Your task to perform on an android device: create a new album in the google photos Image 0: 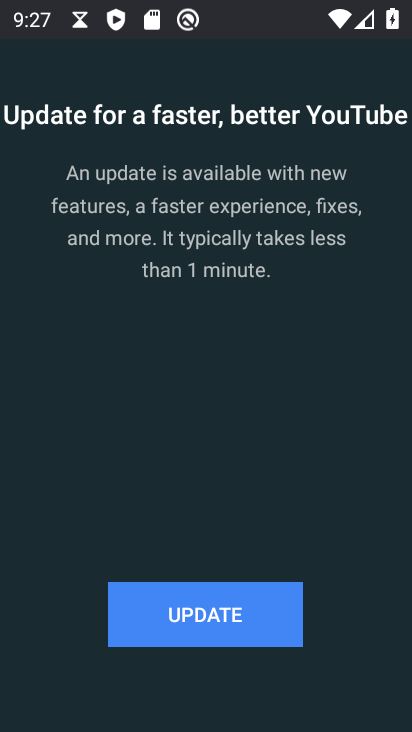
Step 0: press home button
Your task to perform on an android device: create a new album in the google photos Image 1: 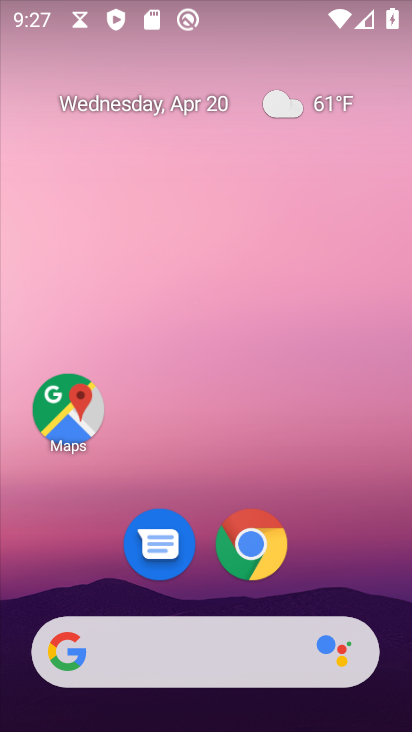
Step 1: drag from (122, 605) to (273, 4)
Your task to perform on an android device: create a new album in the google photos Image 2: 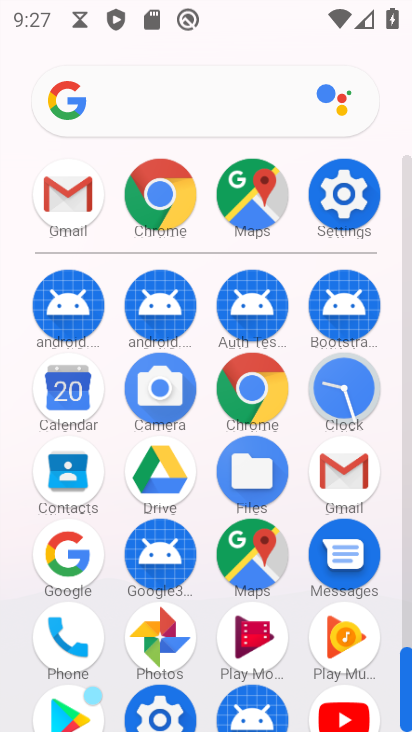
Step 2: click (155, 637)
Your task to perform on an android device: create a new album in the google photos Image 3: 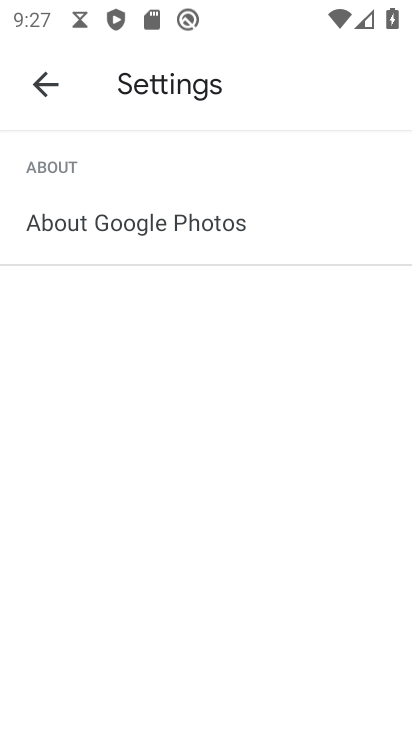
Step 3: click (40, 86)
Your task to perform on an android device: create a new album in the google photos Image 4: 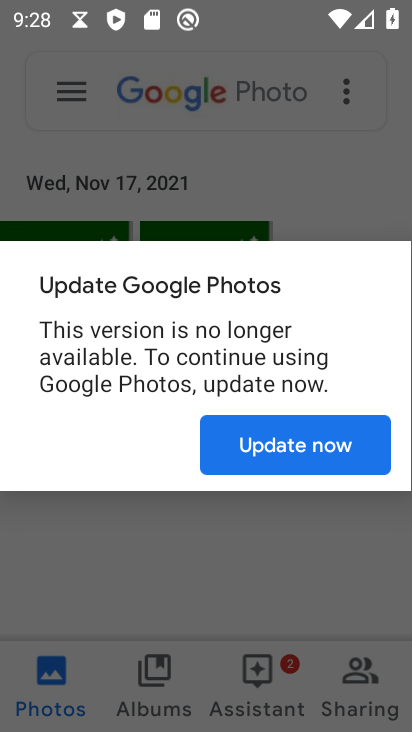
Step 4: click (308, 449)
Your task to perform on an android device: create a new album in the google photos Image 5: 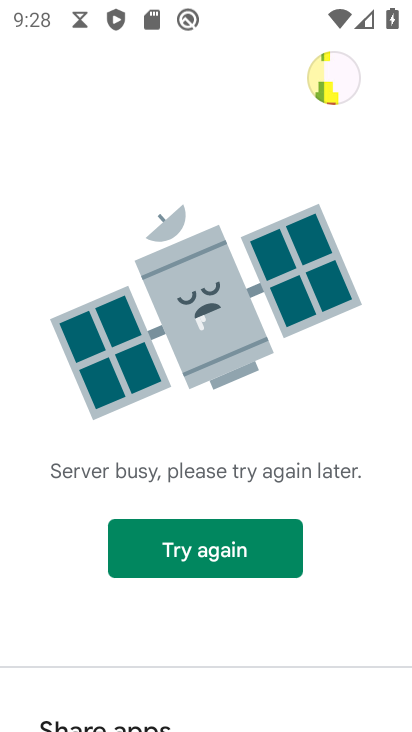
Step 5: click (218, 552)
Your task to perform on an android device: create a new album in the google photos Image 6: 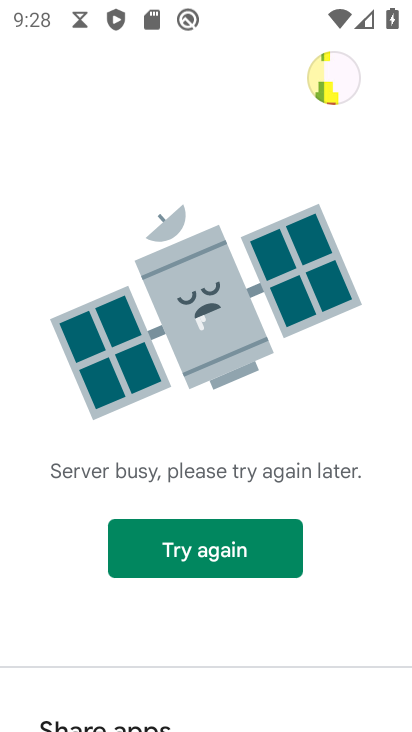
Step 6: press back button
Your task to perform on an android device: create a new album in the google photos Image 7: 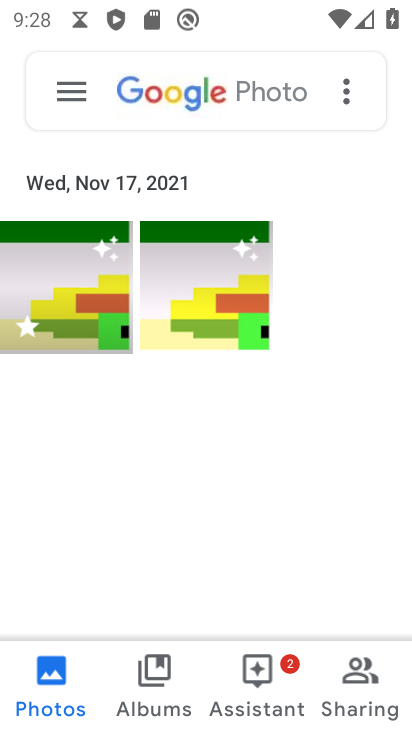
Step 7: click (163, 662)
Your task to perform on an android device: create a new album in the google photos Image 8: 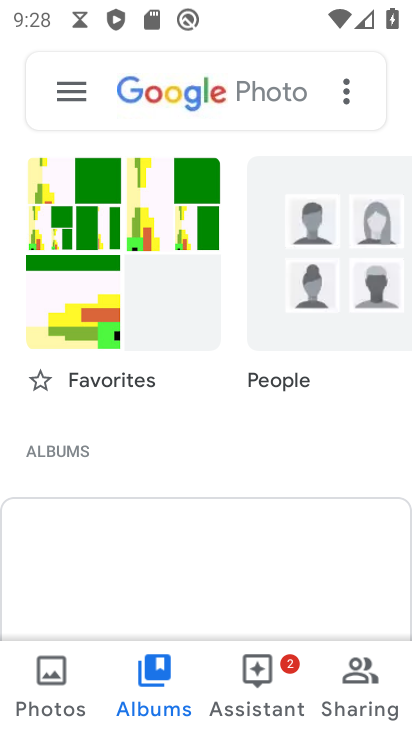
Step 8: drag from (208, 474) to (335, 88)
Your task to perform on an android device: create a new album in the google photos Image 9: 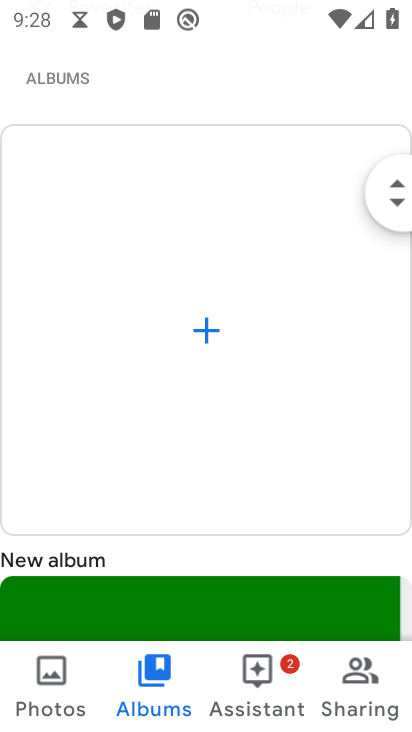
Step 9: click (206, 326)
Your task to perform on an android device: create a new album in the google photos Image 10: 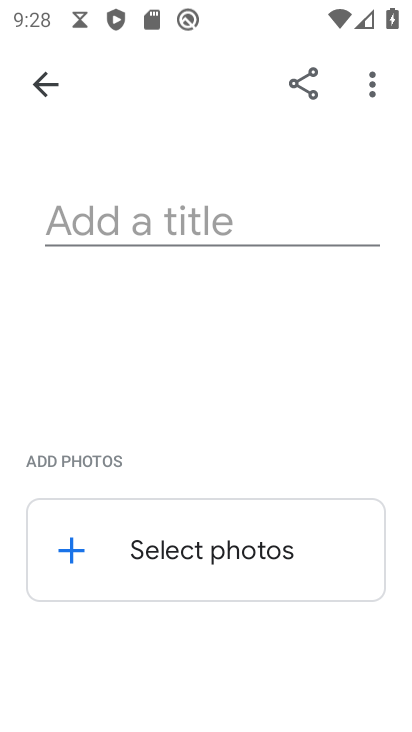
Step 10: click (166, 557)
Your task to perform on an android device: create a new album in the google photos Image 11: 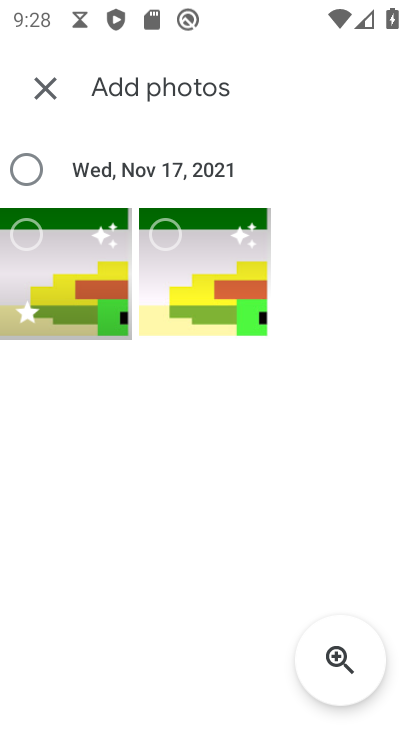
Step 11: click (26, 231)
Your task to perform on an android device: create a new album in the google photos Image 12: 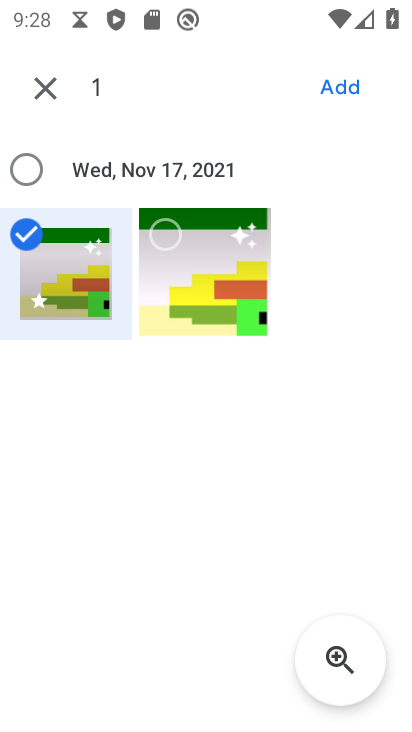
Step 12: click (159, 239)
Your task to perform on an android device: create a new album in the google photos Image 13: 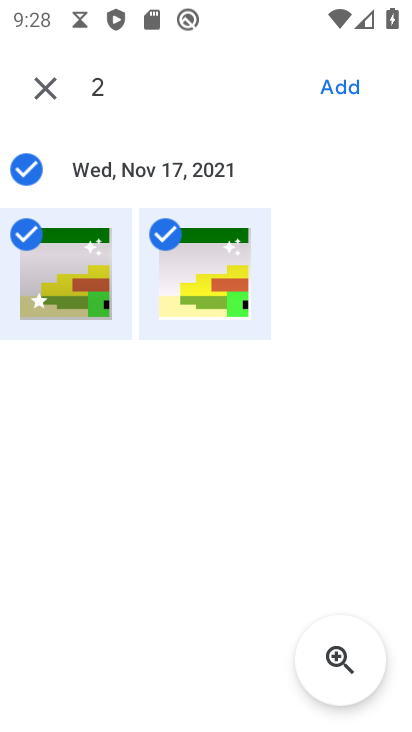
Step 13: click (344, 87)
Your task to perform on an android device: create a new album in the google photos Image 14: 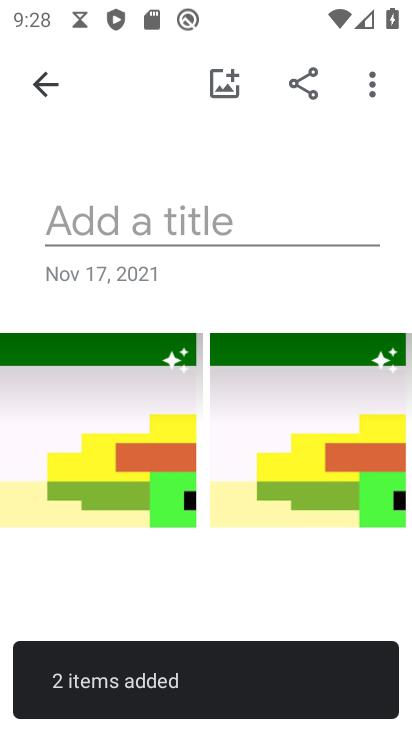
Step 14: task complete